Your task to perform on an android device: Open Android settings Image 0: 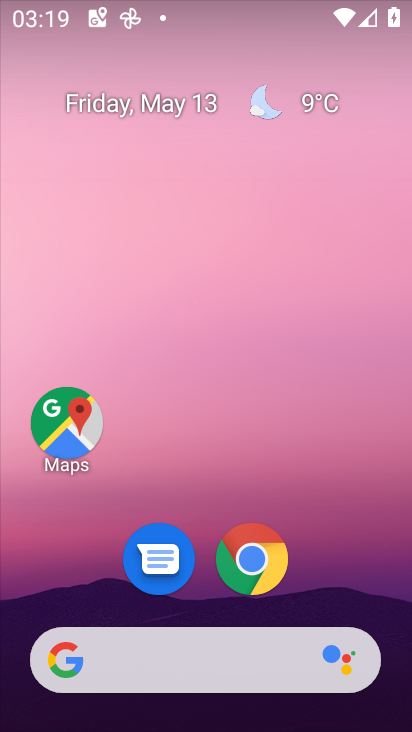
Step 0: click (263, 561)
Your task to perform on an android device: Open Android settings Image 1: 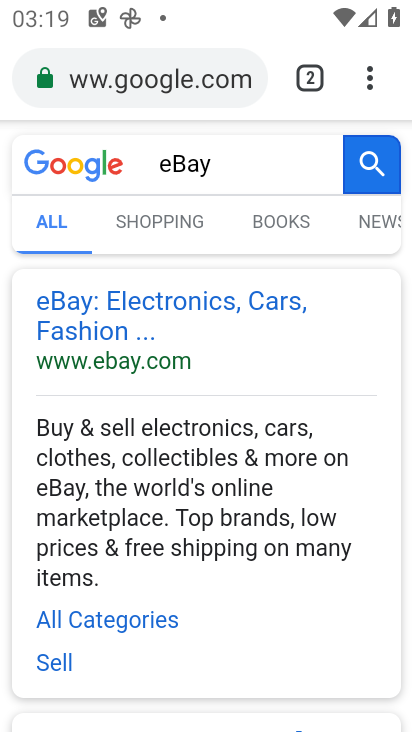
Step 1: press home button
Your task to perform on an android device: Open Android settings Image 2: 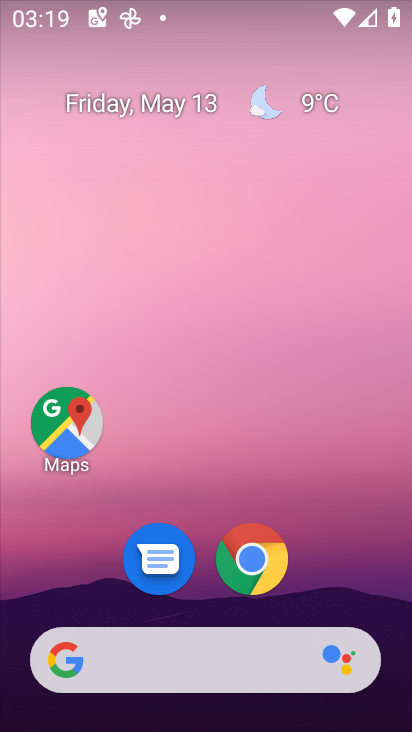
Step 2: drag from (391, 557) to (364, 217)
Your task to perform on an android device: Open Android settings Image 3: 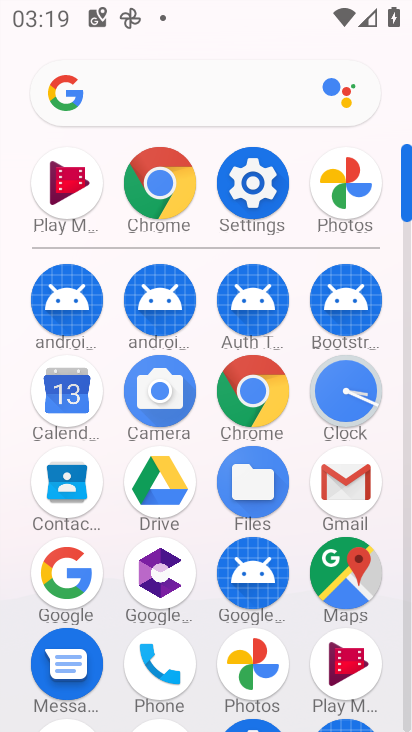
Step 3: click (259, 186)
Your task to perform on an android device: Open Android settings Image 4: 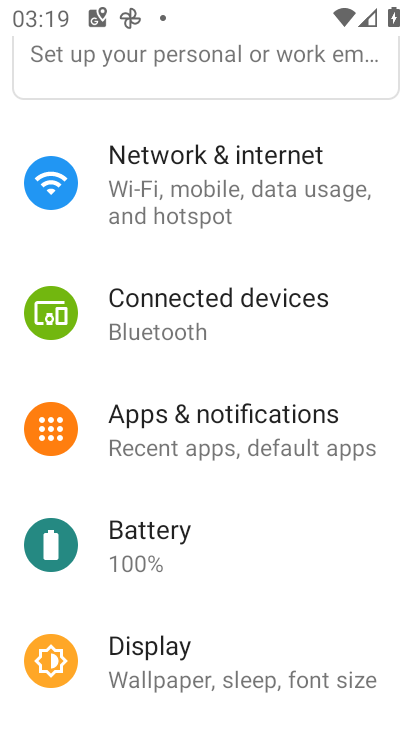
Step 4: task complete